Your task to perform on an android device: Open calendar and show me the second week of next month Image 0: 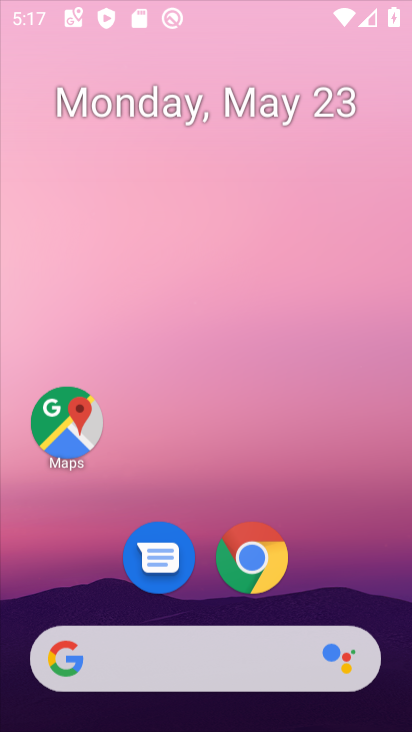
Step 0: press home button
Your task to perform on an android device: Open calendar and show me the second week of next month Image 1: 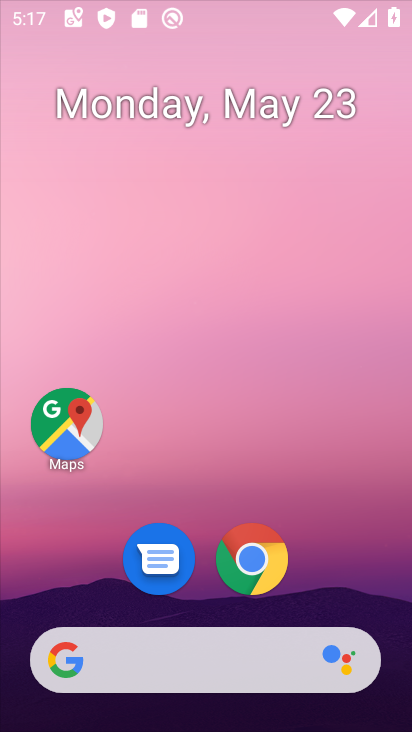
Step 1: drag from (300, 546) to (386, 9)
Your task to perform on an android device: Open calendar and show me the second week of next month Image 2: 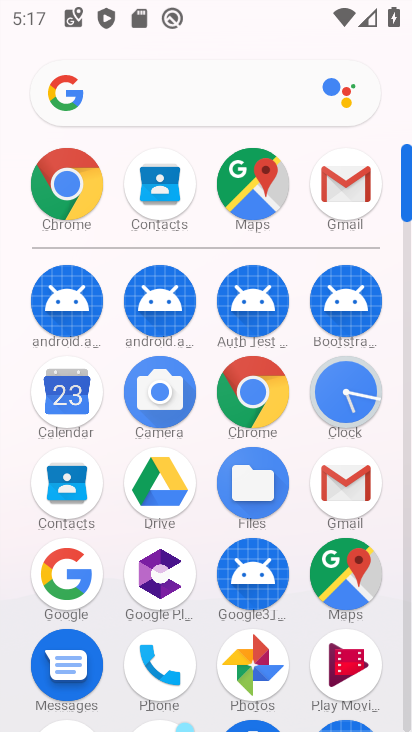
Step 2: drag from (299, 580) to (308, 196)
Your task to perform on an android device: Open calendar and show me the second week of next month Image 3: 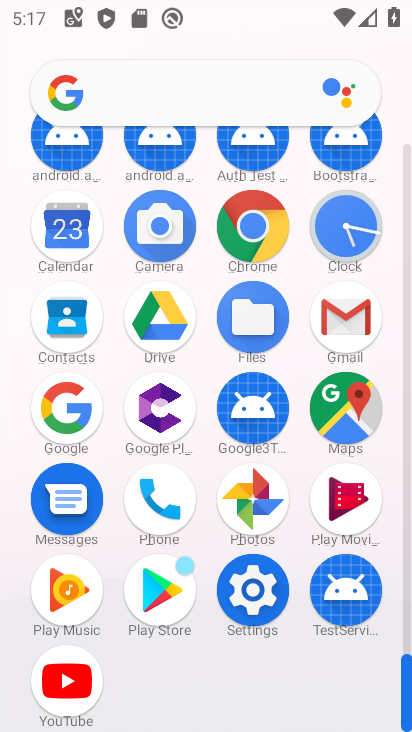
Step 3: click (76, 245)
Your task to perform on an android device: Open calendar and show me the second week of next month Image 4: 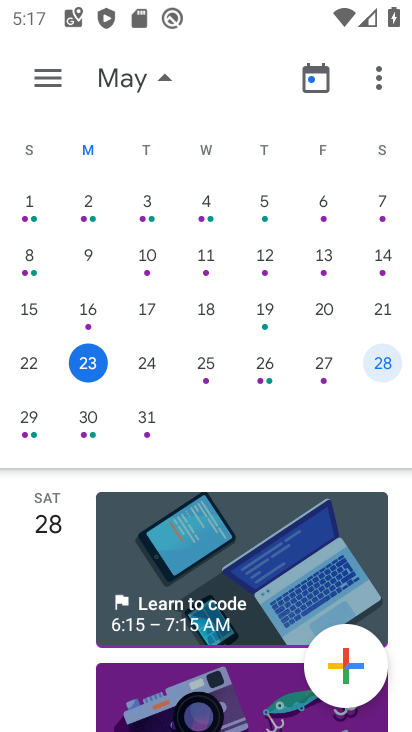
Step 4: drag from (353, 260) to (15, 322)
Your task to perform on an android device: Open calendar and show me the second week of next month Image 5: 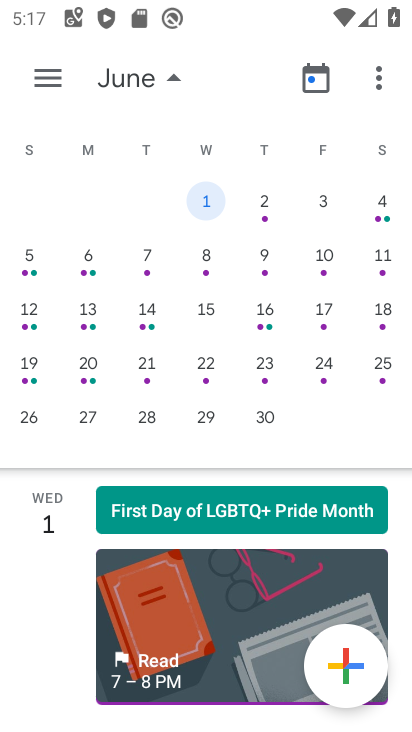
Step 5: click (264, 264)
Your task to perform on an android device: Open calendar and show me the second week of next month Image 6: 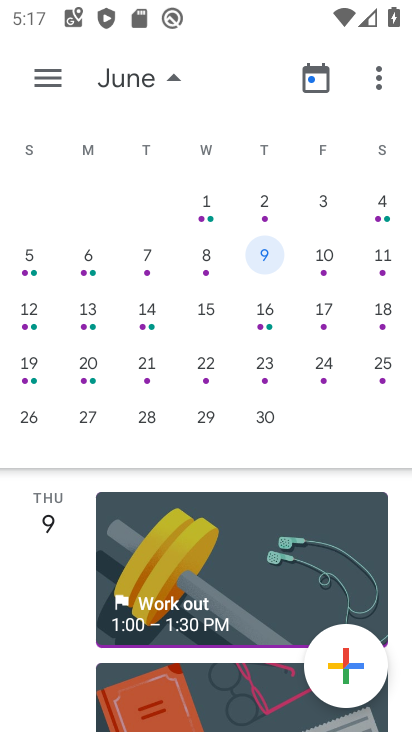
Step 6: task complete